Your task to perform on an android device: change the clock display to digital Image 0: 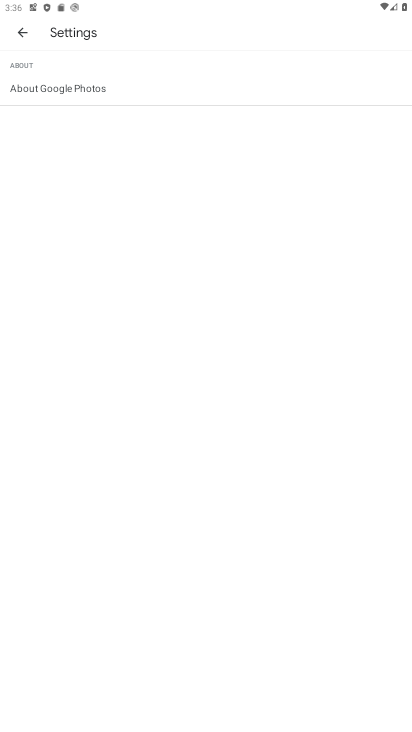
Step 0: press home button
Your task to perform on an android device: change the clock display to digital Image 1: 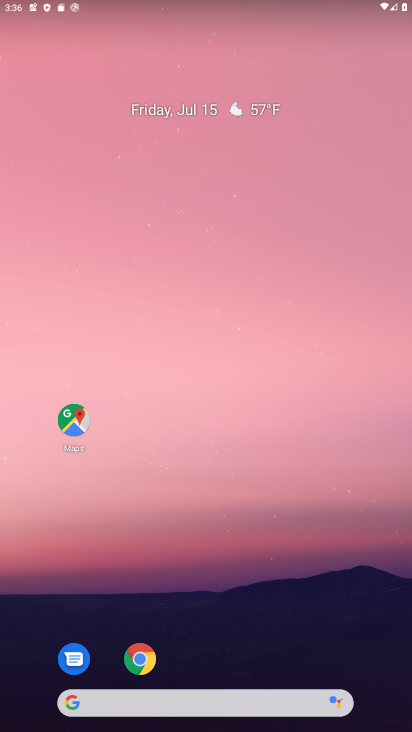
Step 1: drag from (180, 685) to (210, 265)
Your task to perform on an android device: change the clock display to digital Image 2: 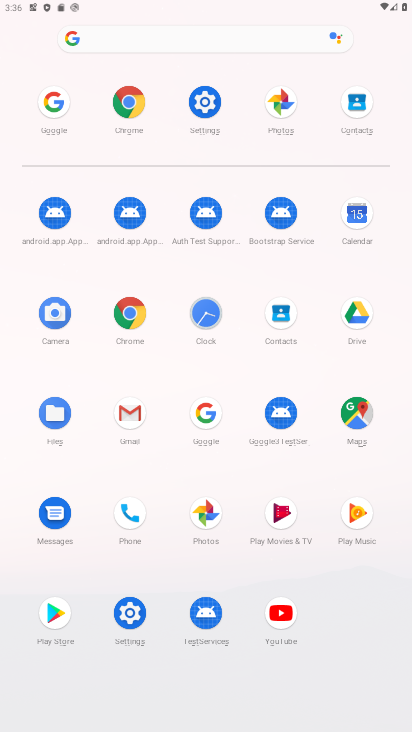
Step 2: click (201, 318)
Your task to perform on an android device: change the clock display to digital Image 3: 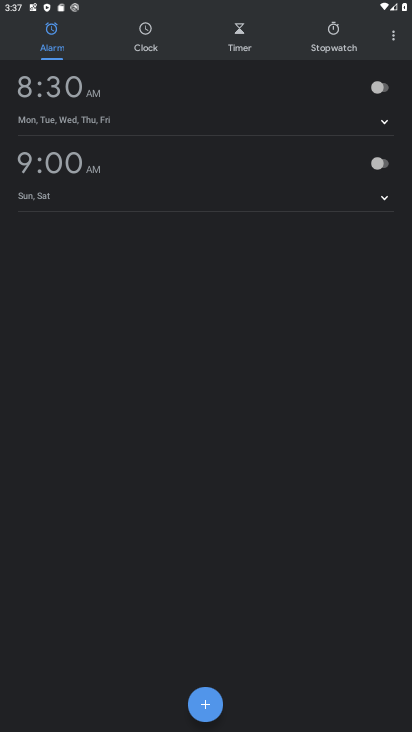
Step 3: click (398, 37)
Your task to perform on an android device: change the clock display to digital Image 4: 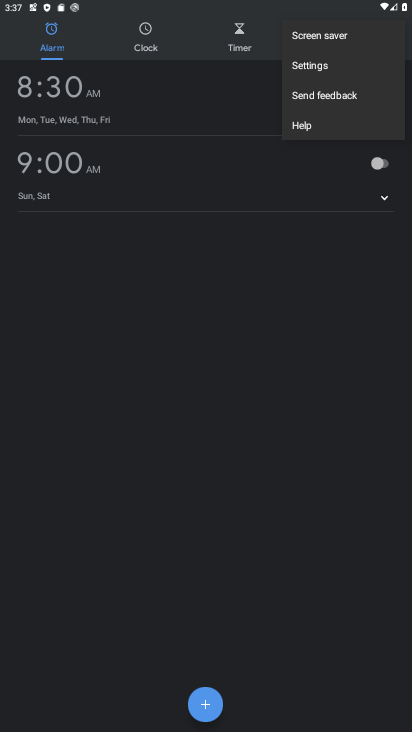
Step 4: click (301, 65)
Your task to perform on an android device: change the clock display to digital Image 5: 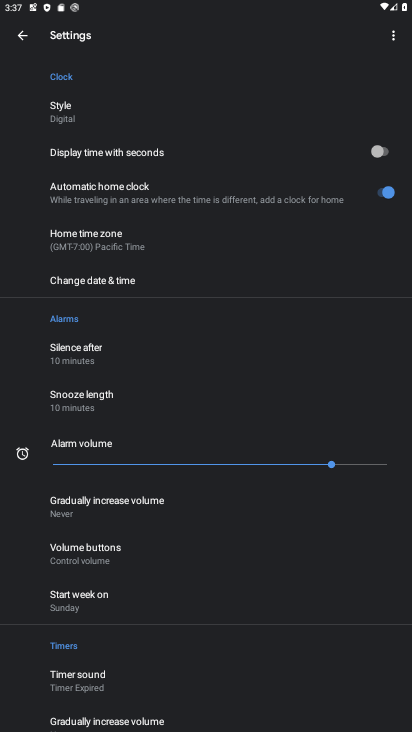
Step 5: click (65, 119)
Your task to perform on an android device: change the clock display to digital Image 6: 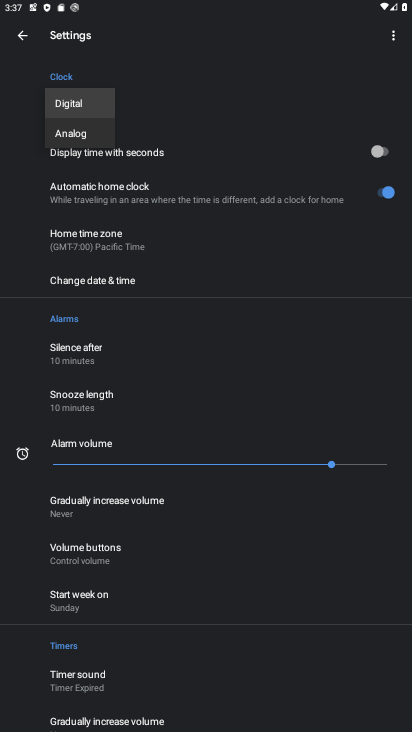
Step 6: task complete